Your task to perform on an android device: Clear all items from cart on bestbuy.com. Add "razer kraken" to the cart on bestbuy.com Image 0: 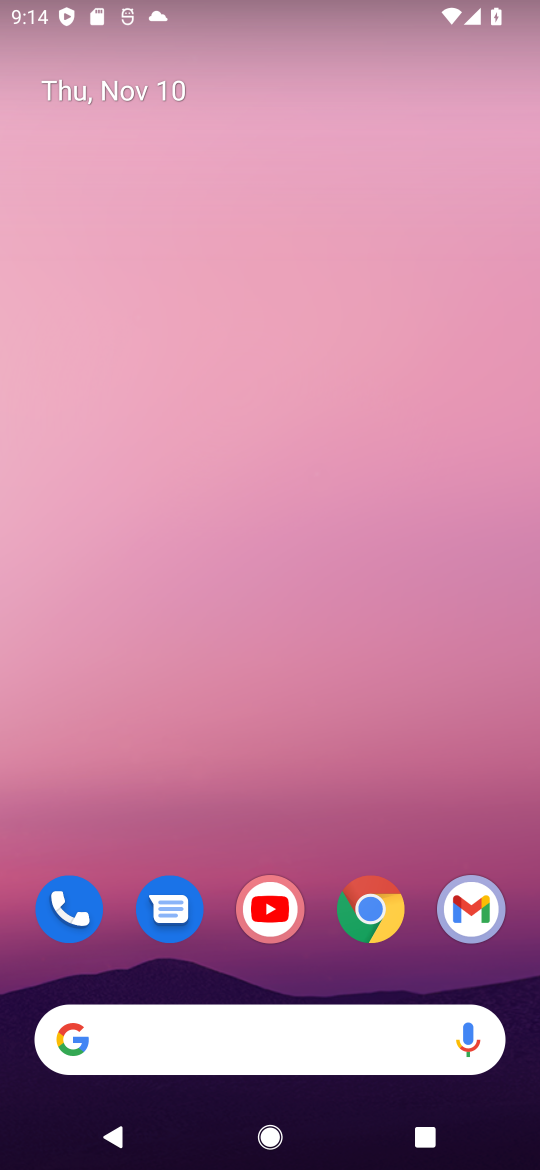
Step 0: drag from (295, 1039) to (291, 331)
Your task to perform on an android device: Clear all items from cart on bestbuy.com. Add "razer kraken" to the cart on bestbuy.com Image 1: 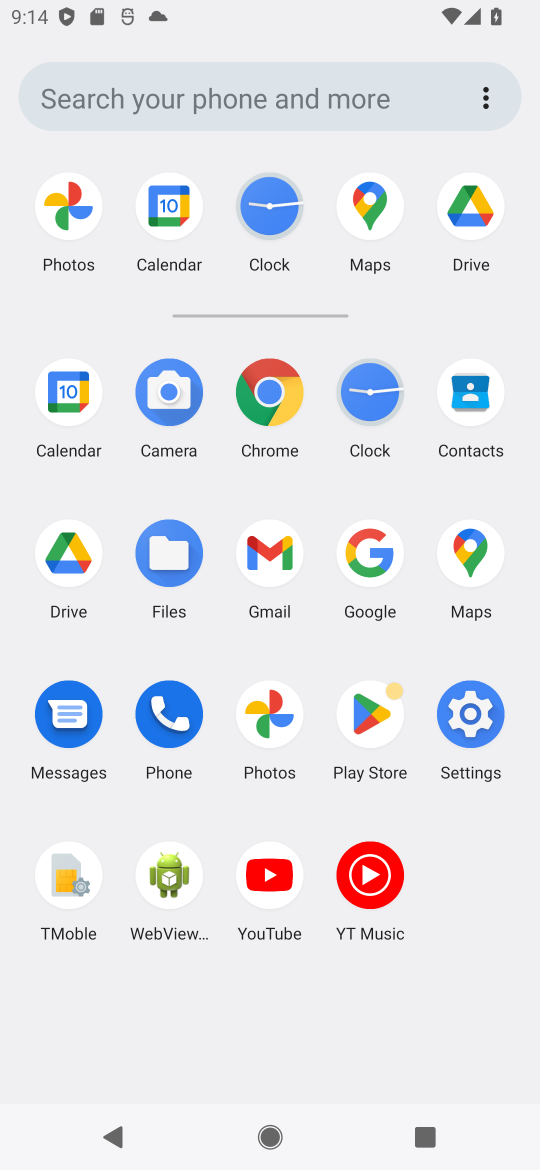
Step 1: click (358, 543)
Your task to perform on an android device: Clear all items from cart on bestbuy.com. Add "razer kraken" to the cart on bestbuy.com Image 2: 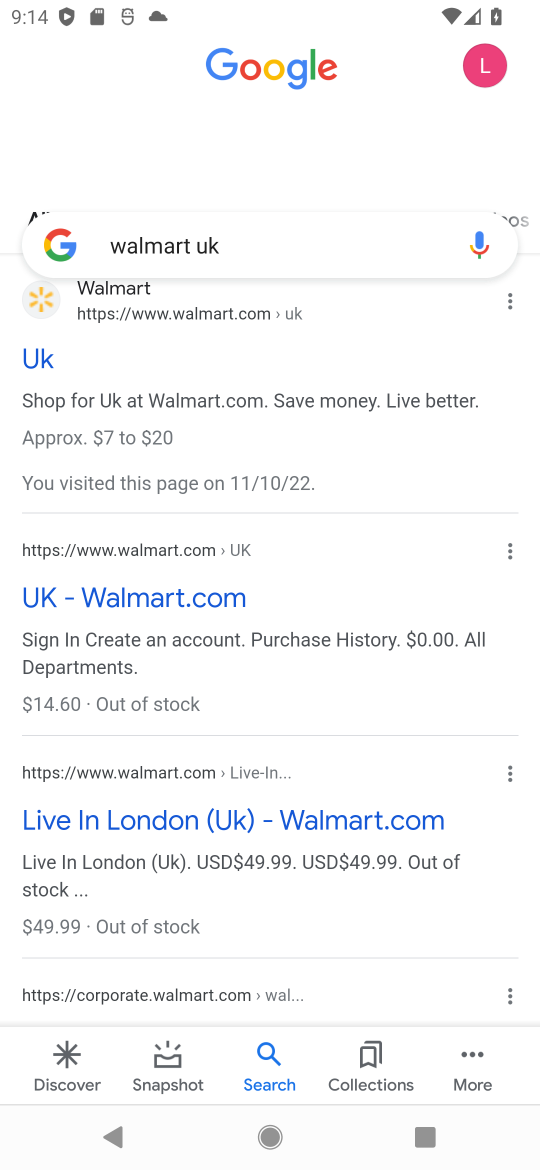
Step 2: click (356, 231)
Your task to perform on an android device: Clear all items from cart on bestbuy.com. Add "razer kraken" to the cart on bestbuy.com Image 3: 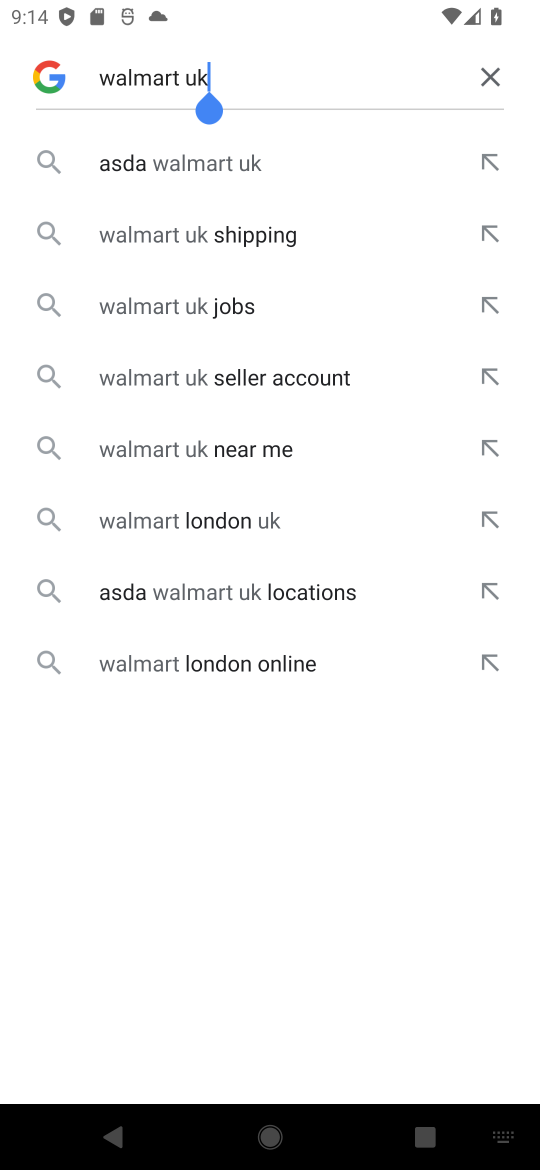
Step 3: click (482, 48)
Your task to perform on an android device: Clear all items from cart on bestbuy.com. Add "razer kraken" to the cart on bestbuy.com Image 4: 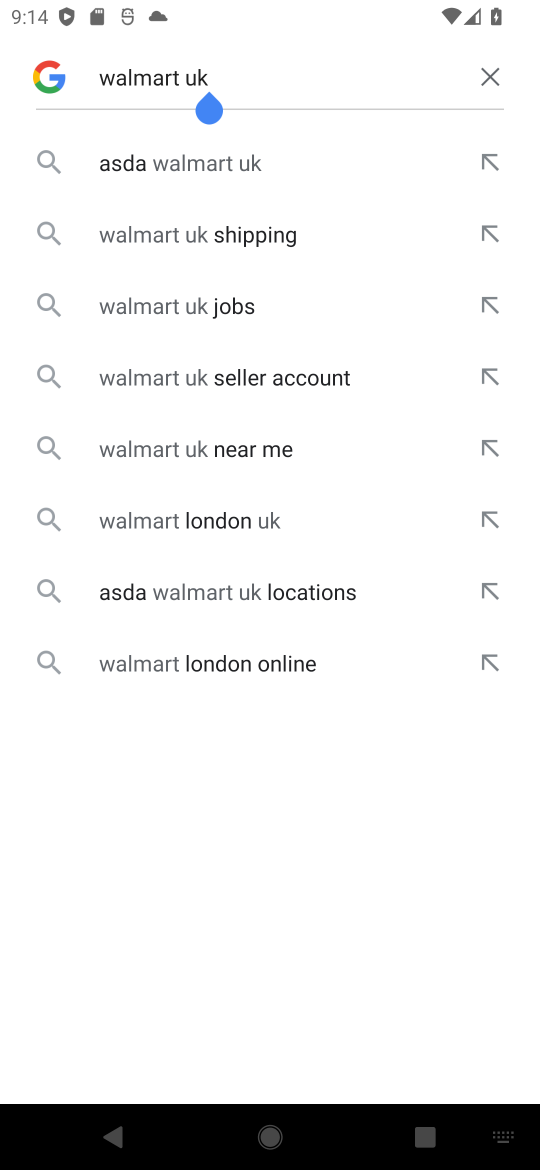
Step 4: click (482, 63)
Your task to perform on an android device: Clear all items from cart on bestbuy.com. Add "razer kraken" to the cart on bestbuy.com Image 5: 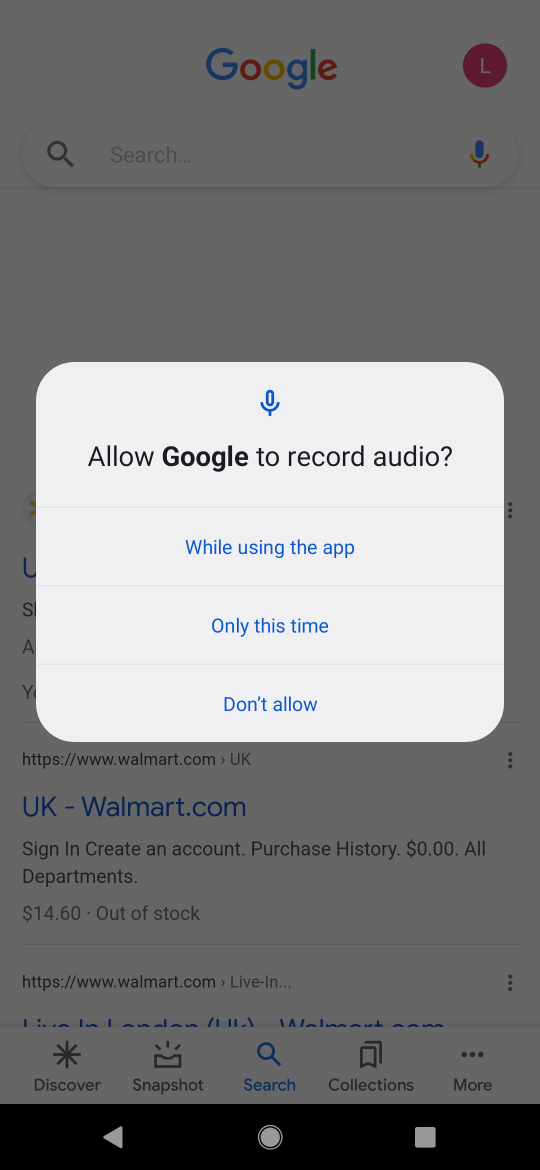
Step 5: click (478, 293)
Your task to perform on an android device: Clear all items from cart on bestbuy.com. Add "razer kraken" to the cart on bestbuy.com Image 6: 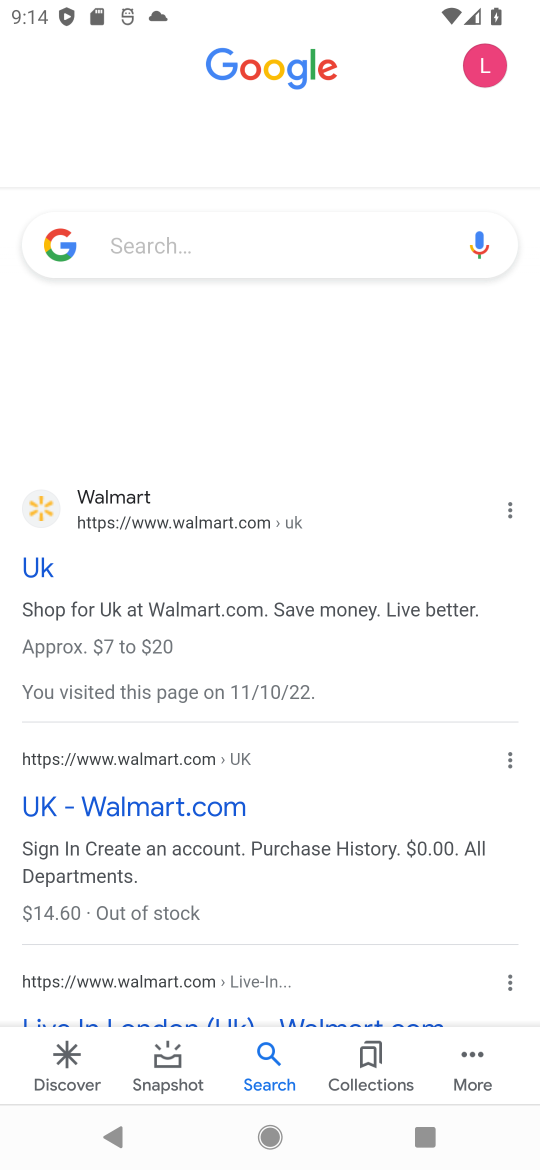
Step 6: click (169, 228)
Your task to perform on an android device: Clear all items from cart on bestbuy.com. Add "razer kraken" to the cart on bestbuy.com Image 7: 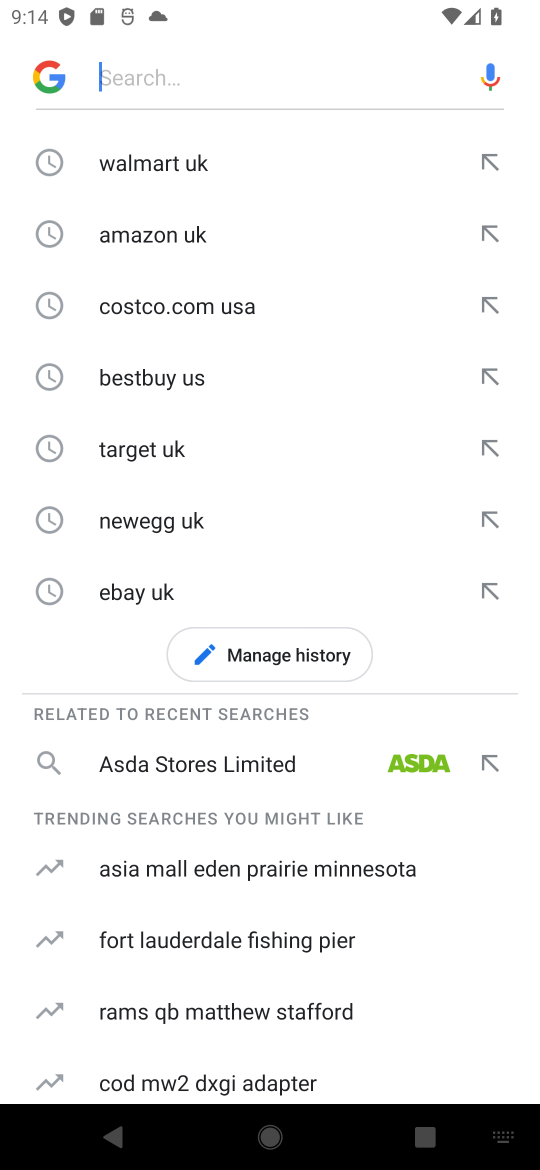
Step 7: type "bestbuy "
Your task to perform on an android device: Clear all items from cart on bestbuy.com. Add "razer kraken" to the cart on bestbuy.com Image 8: 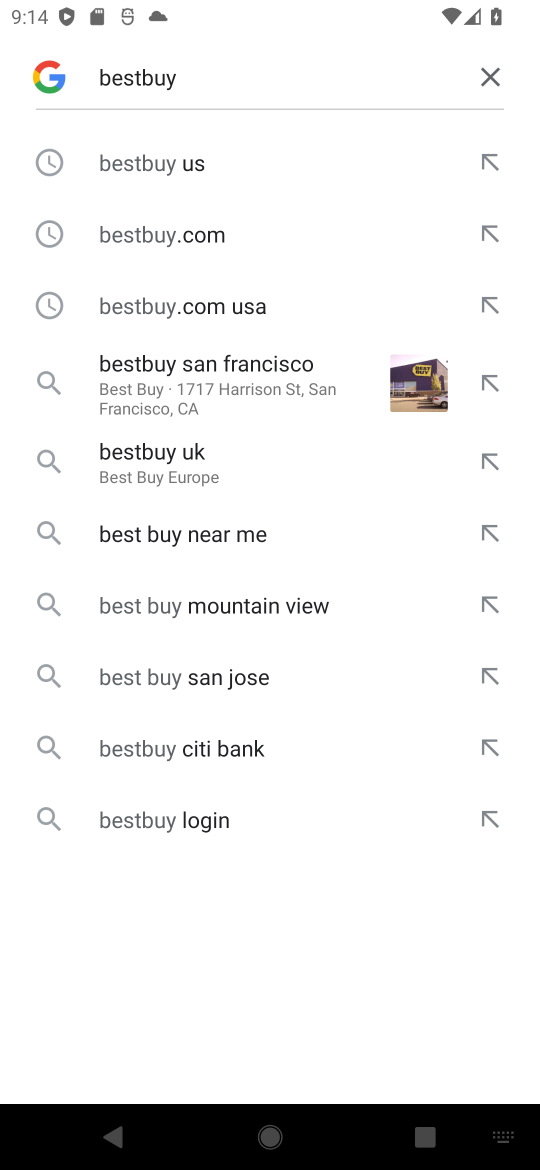
Step 8: click (179, 159)
Your task to perform on an android device: Clear all items from cart on bestbuy.com. Add "razer kraken" to the cart on bestbuy.com Image 9: 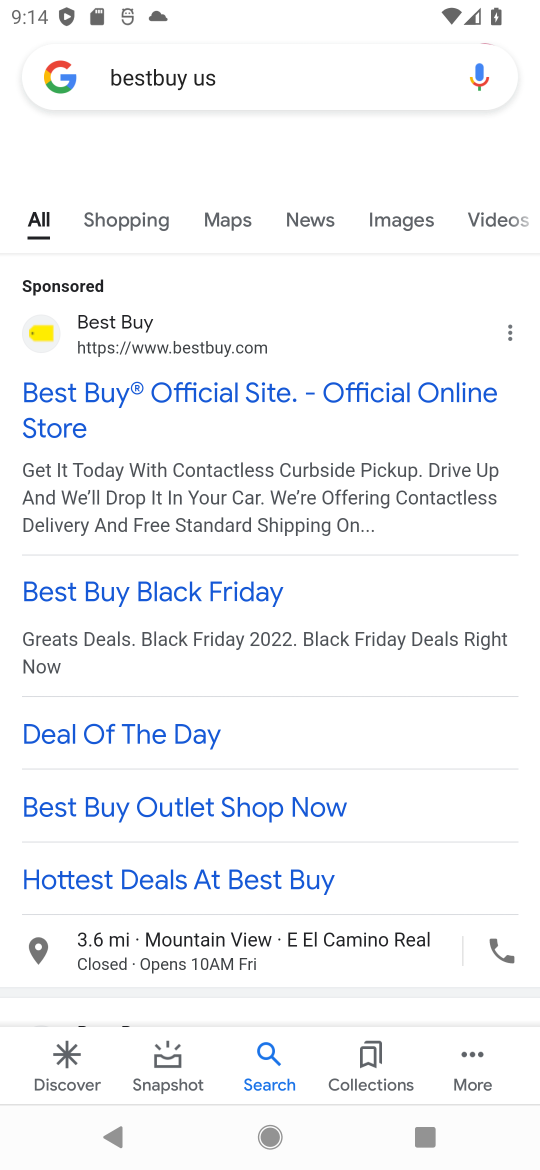
Step 9: click (35, 323)
Your task to perform on an android device: Clear all items from cart on bestbuy.com. Add "razer kraken" to the cart on bestbuy.com Image 10: 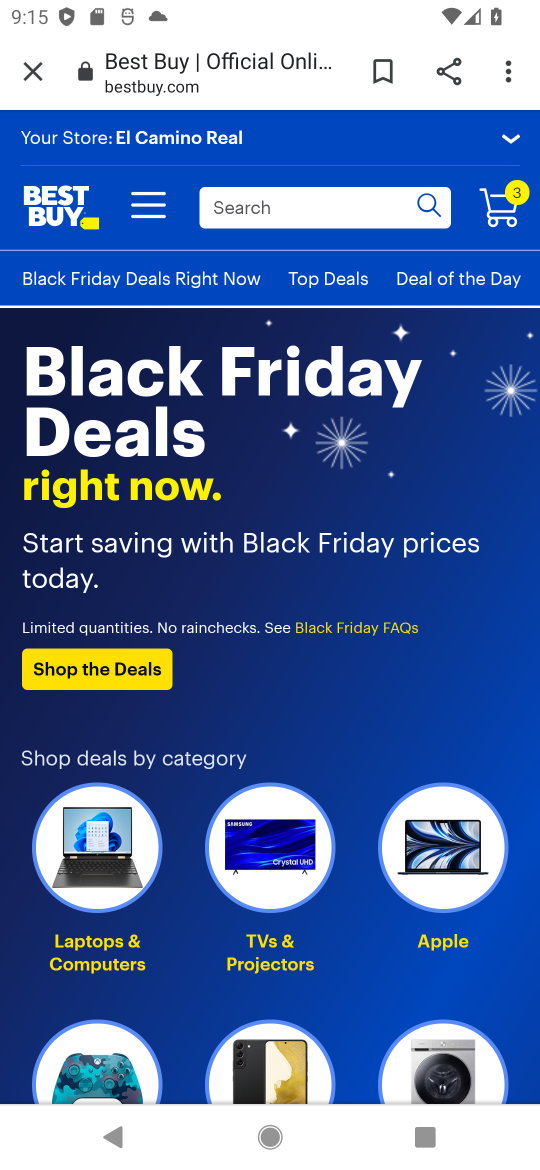
Step 10: click (263, 198)
Your task to perform on an android device: Clear all items from cart on bestbuy.com. Add "razer kraken" to the cart on bestbuy.com Image 11: 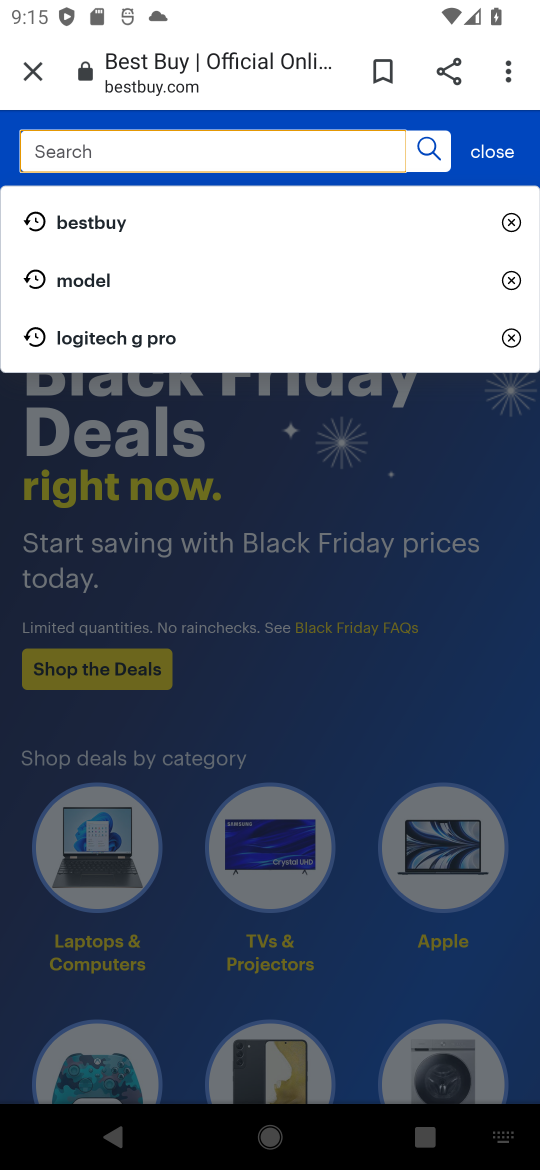
Step 11: type "razer kraken "
Your task to perform on an android device: Clear all items from cart on bestbuy.com. Add "razer kraken" to the cart on bestbuy.com Image 12: 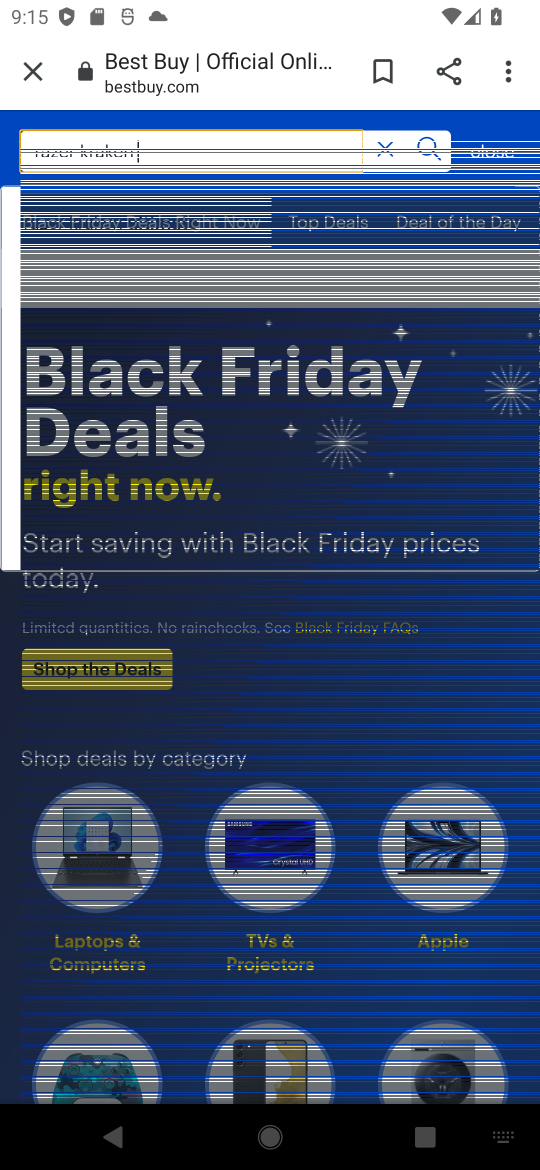
Step 12: click (138, 280)
Your task to perform on an android device: Clear all items from cart on bestbuy.com. Add "razer kraken" to the cart on bestbuy.com Image 13: 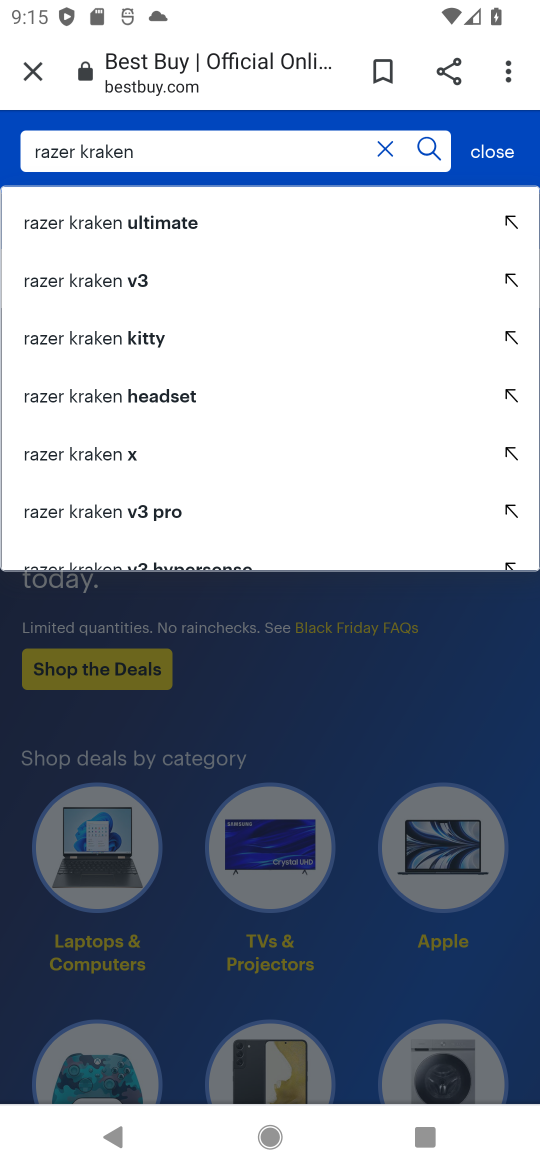
Step 13: click (138, 288)
Your task to perform on an android device: Clear all items from cart on bestbuy.com. Add "razer kraken" to the cart on bestbuy.com Image 14: 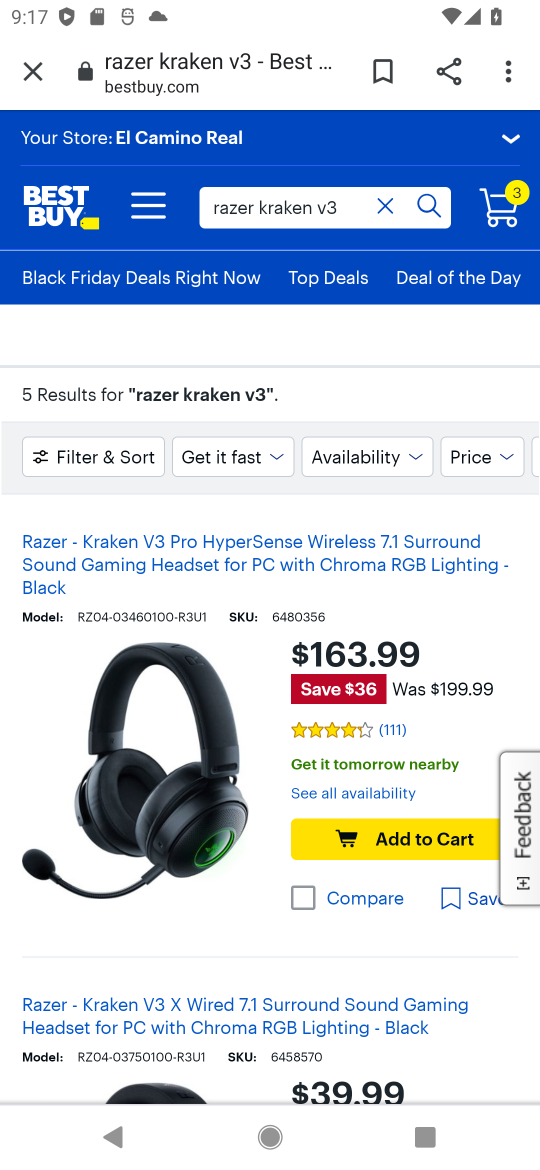
Step 14: click (373, 842)
Your task to perform on an android device: Clear all items from cart on bestbuy.com. Add "razer kraken" to the cart on bestbuy.com Image 15: 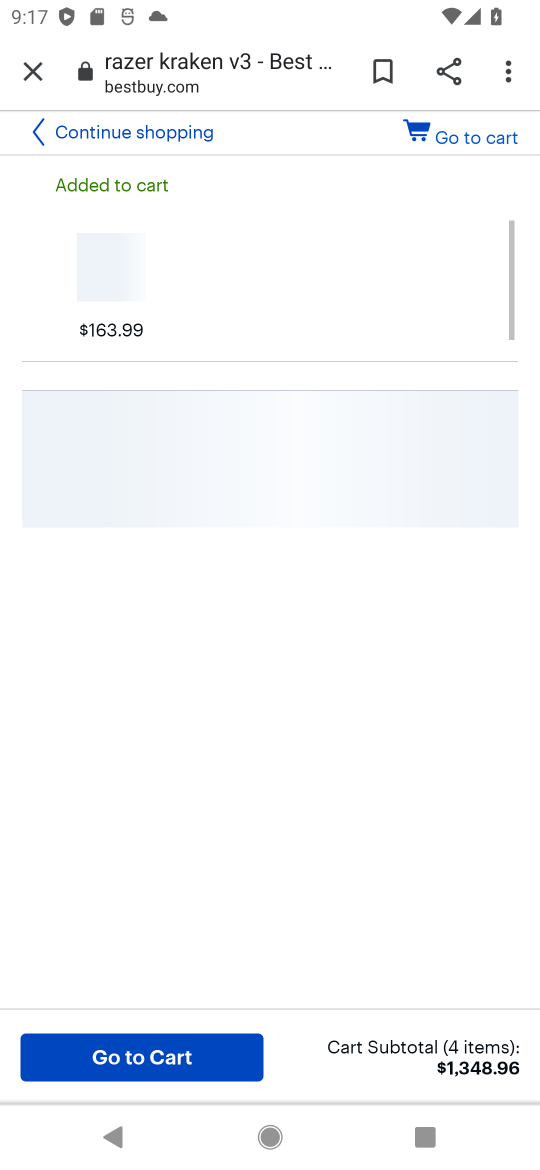
Step 15: task complete